Your task to perform on an android device: turn on translation in the chrome app Image 0: 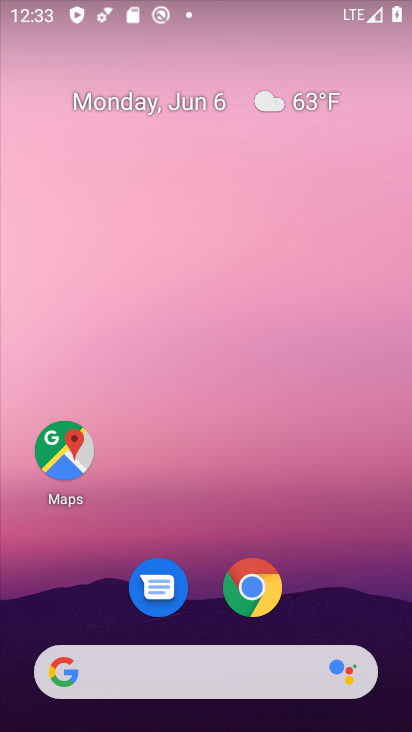
Step 0: click (272, 591)
Your task to perform on an android device: turn on translation in the chrome app Image 1: 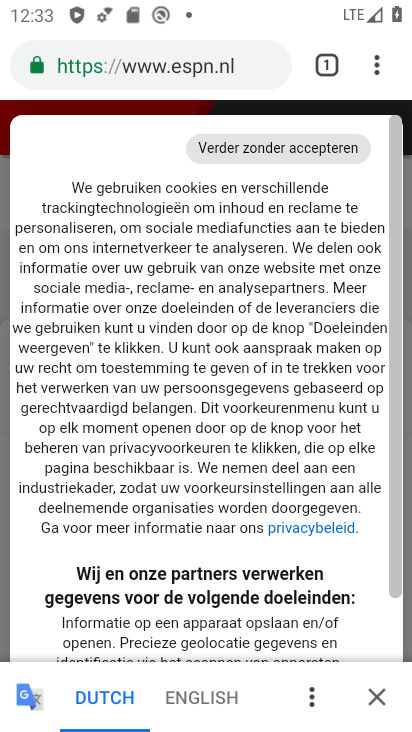
Step 1: click (377, 75)
Your task to perform on an android device: turn on translation in the chrome app Image 2: 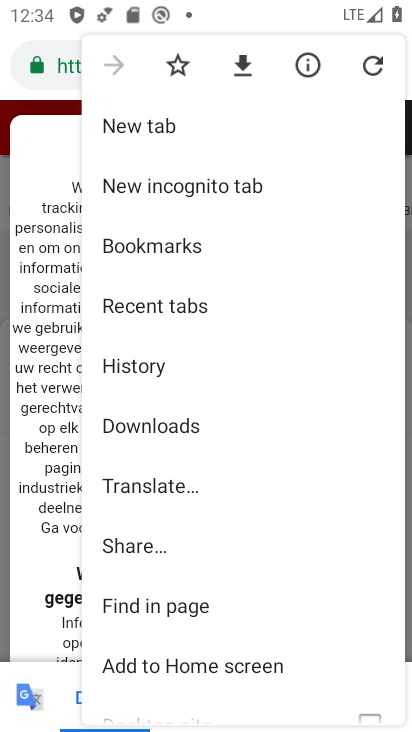
Step 2: drag from (146, 636) to (146, 316)
Your task to perform on an android device: turn on translation in the chrome app Image 3: 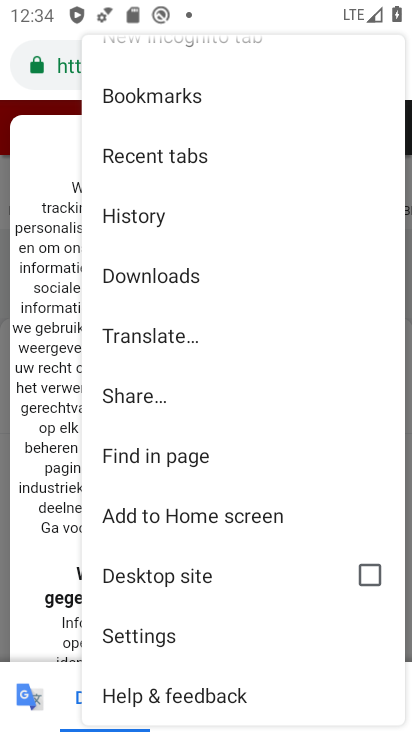
Step 3: click (164, 639)
Your task to perform on an android device: turn on translation in the chrome app Image 4: 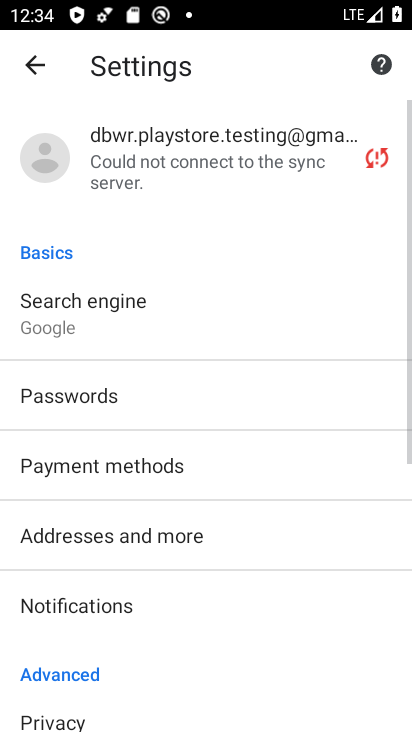
Step 4: drag from (146, 634) to (134, 133)
Your task to perform on an android device: turn on translation in the chrome app Image 5: 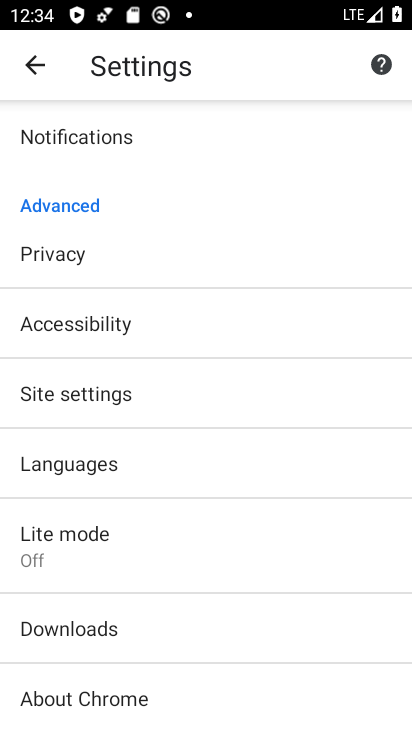
Step 5: click (112, 469)
Your task to perform on an android device: turn on translation in the chrome app Image 6: 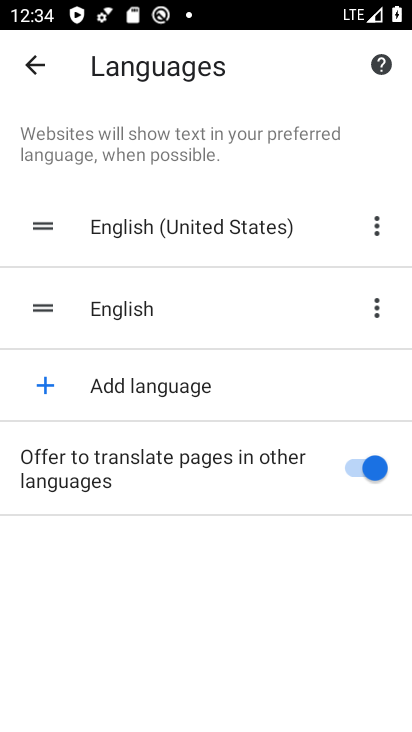
Step 6: task complete